Your task to perform on an android device: add a contact in the contacts app Image 0: 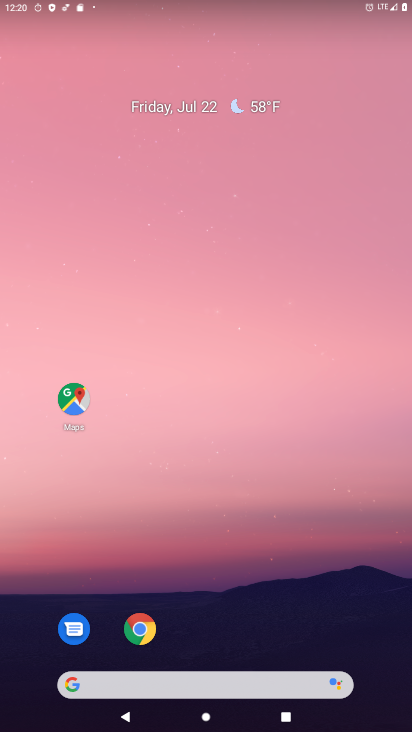
Step 0: drag from (334, 612) to (360, 112)
Your task to perform on an android device: add a contact in the contacts app Image 1: 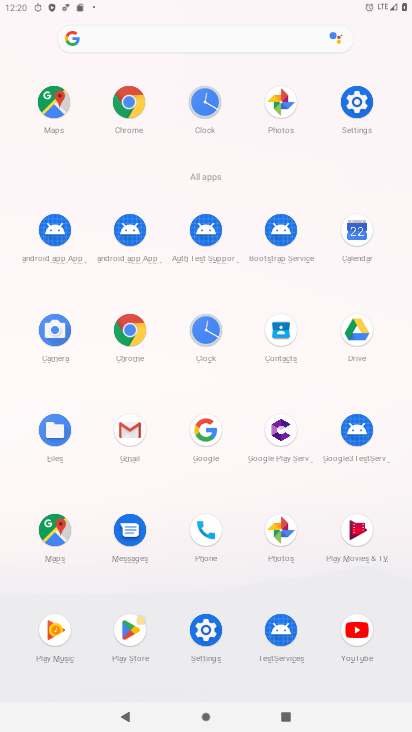
Step 1: click (276, 335)
Your task to perform on an android device: add a contact in the contacts app Image 2: 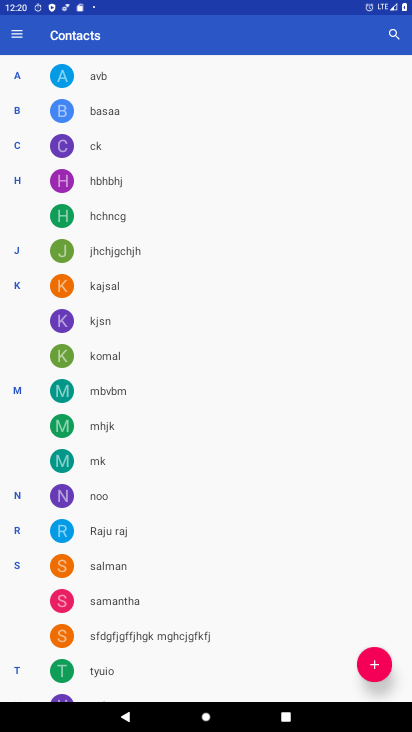
Step 2: click (375, 671)
Your task to perform on an android device: add a contact in the contacts app Image 3: 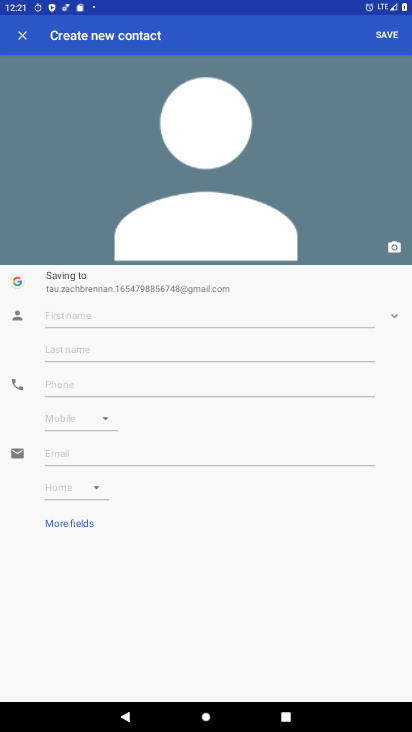
Step 3: click (302, 313)
Your task to perform on an android device: add a contact in the contacts app Image 4: 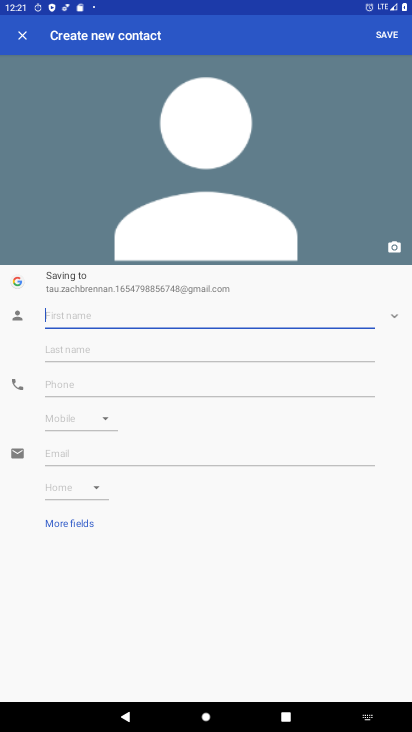
Step 4: type "gg"
Your task to perform on an android device: add a contact in the contacts app Image 5: 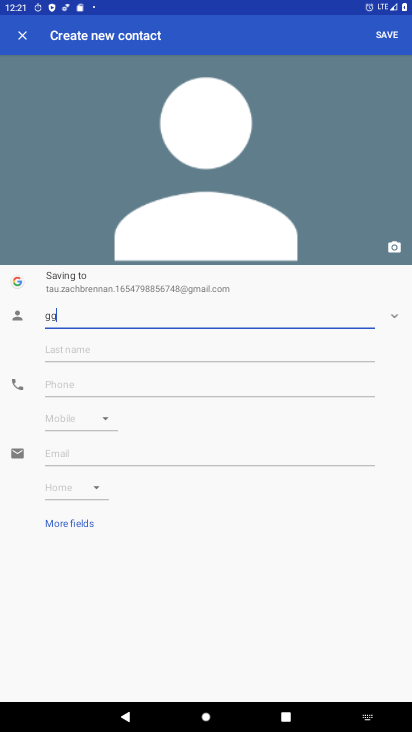
Step 5: click (213, 388)
Your task to perform on an android device: add a contact in the contacts app Image 6: 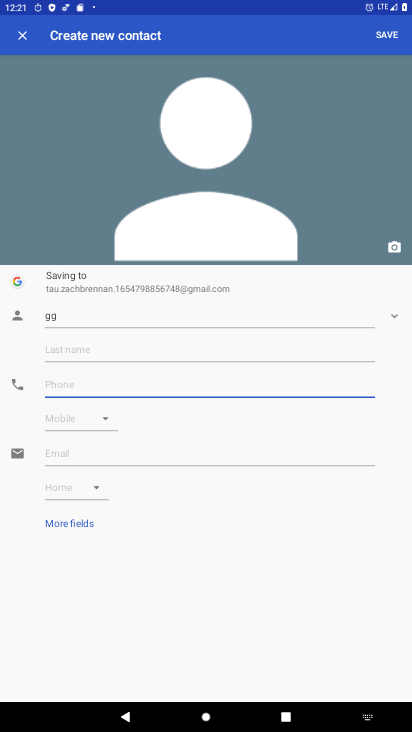
Step 6: type "123456789"
Your task to perform on an android device: add a contact in the contacts app Image 7: 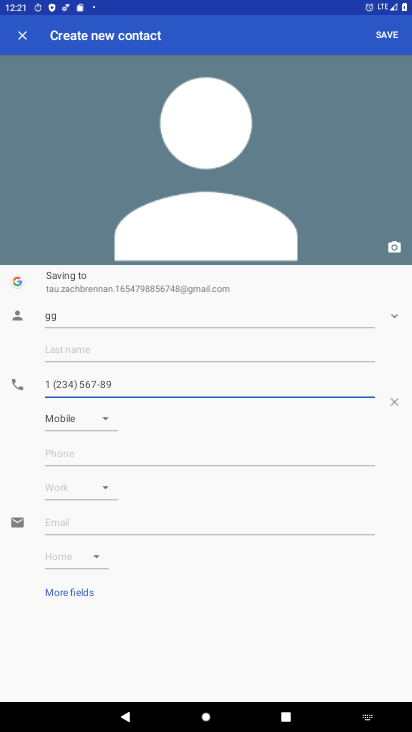
Step 7: click (383, 41)
Your task to perform on an android device: add a contact in the contacts app Image 8: 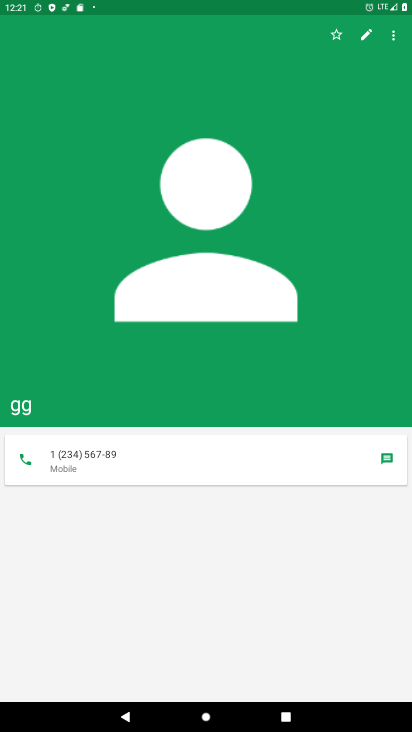
Step 8: task complete